Your task to perform on an android device: turn off picture-in-picture Image 0: 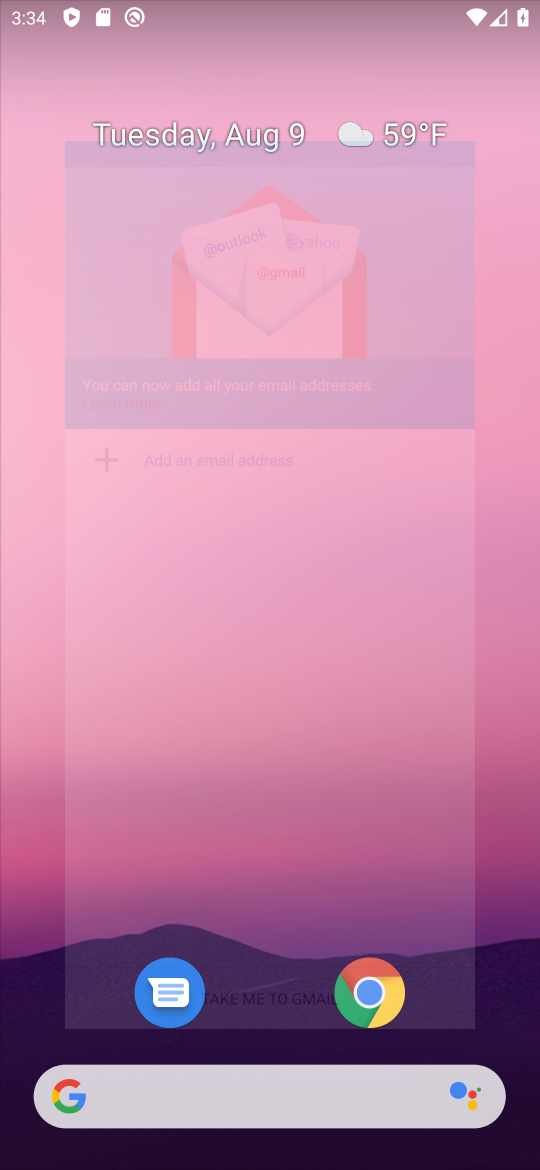
Step 0: press back button
Your task to perform on an android device: turn off picture-in-picture Image 1: 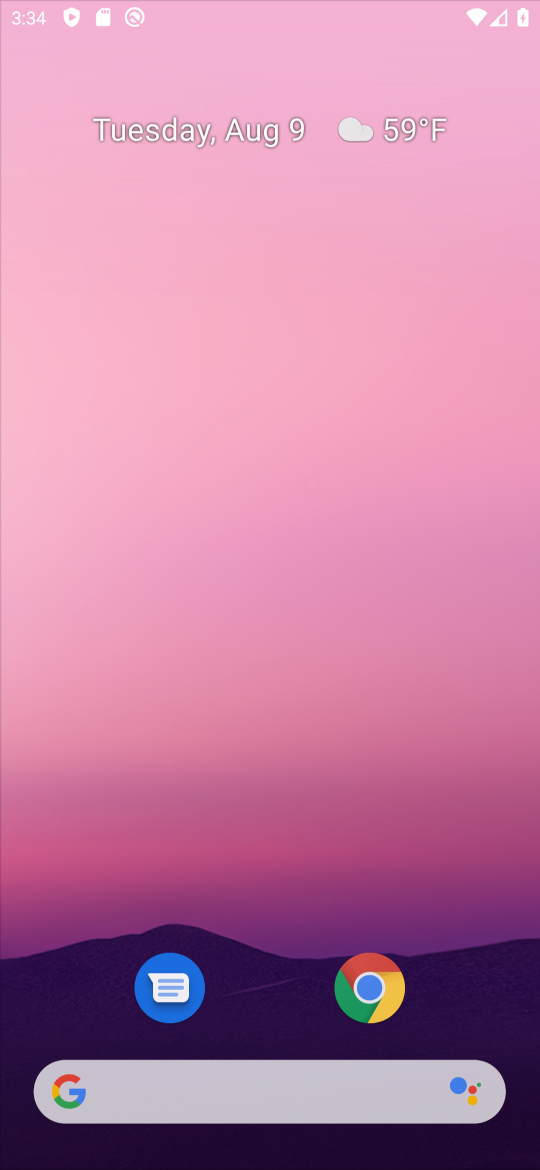
Step 1: press back button
Your task to perform on an android device: turn off picture-in-picture Image 2: 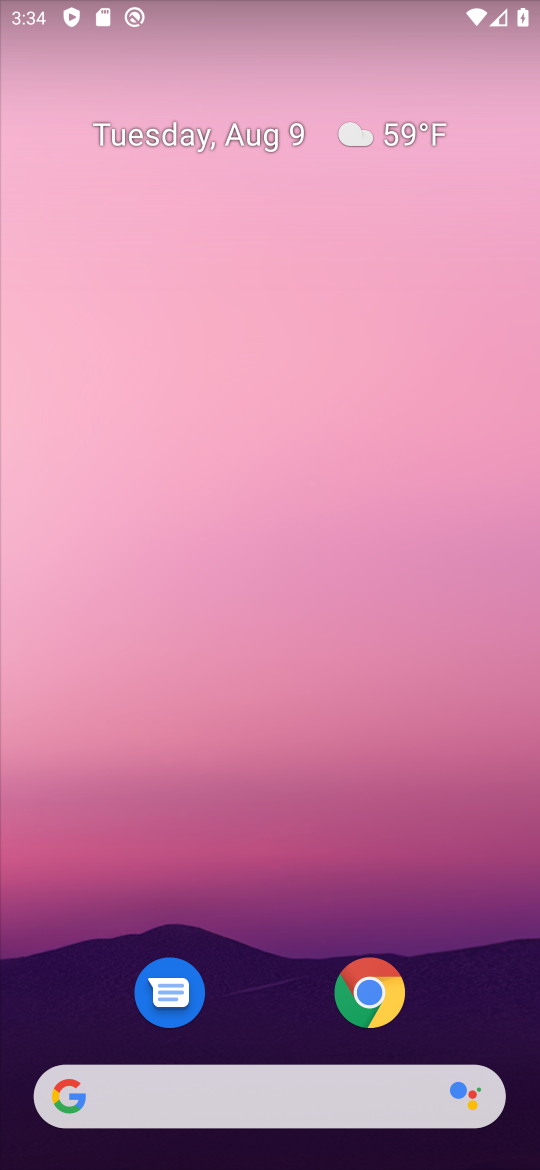
Step 2: drag from (296, 806) to (397, 148)
Your task to perform on an android device: turn off picture-in-picture Image 3: 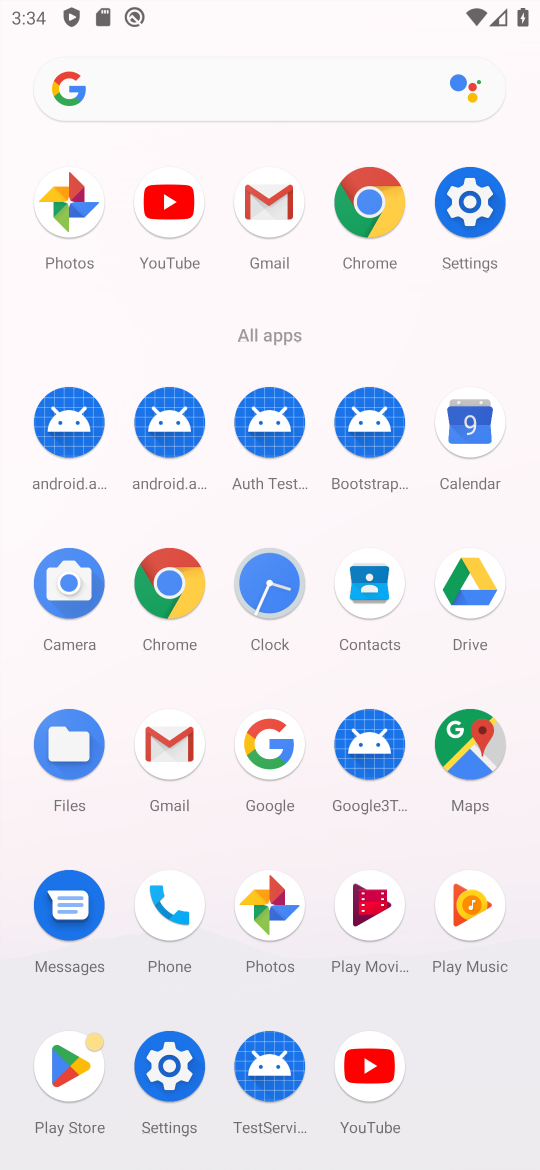
Step 3: click (476, 184)
Your task to perform on an android device: turn off picture-in-picture Image 4: 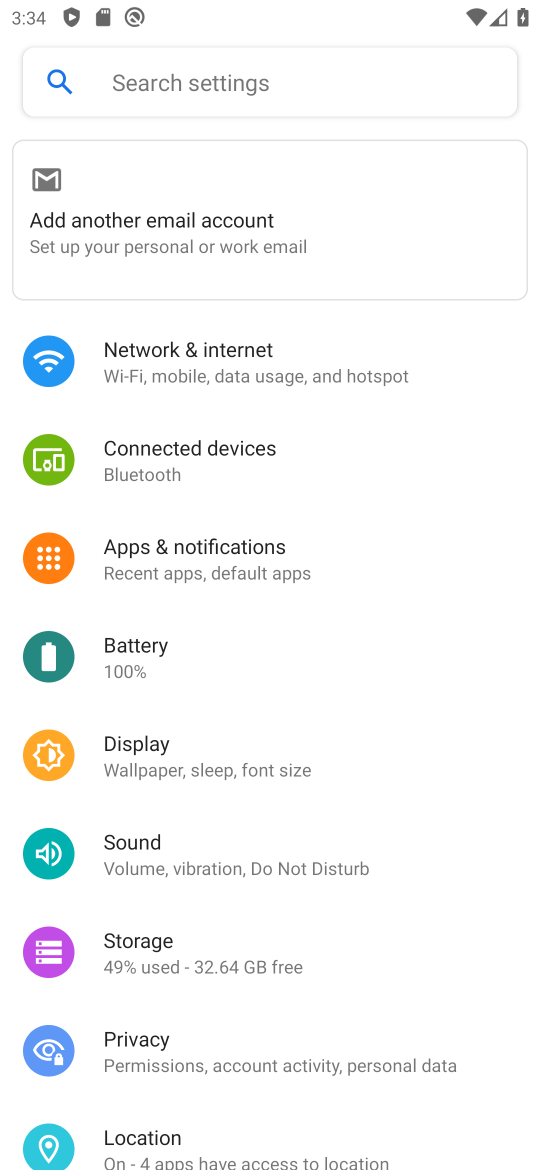
Step 4: press back button
Your task to perform on an android device: turn off picture-in-picture Image 5: 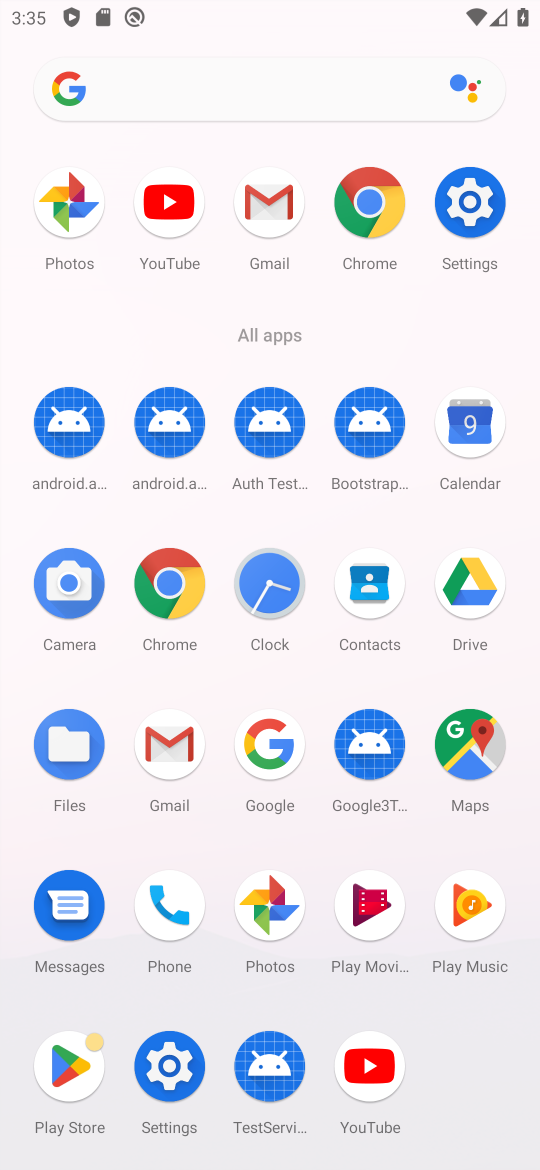
Step 5: click (153, 1071)
Your task to perform on an android device: turn off picture-in-picture Image 6: 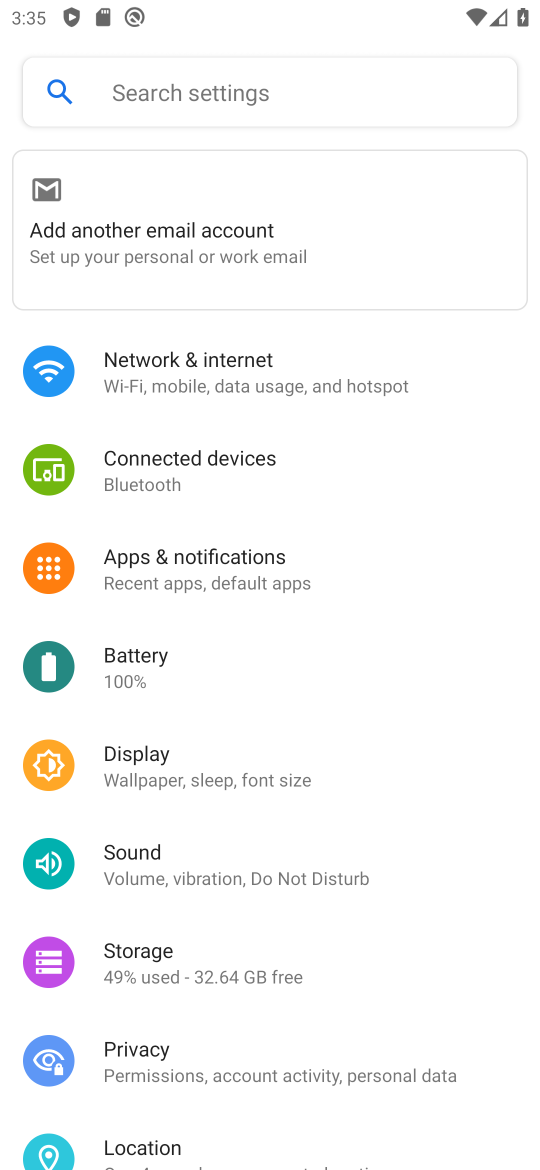
Step 6: click (285, 564)
Your task to perform on an android device: turn off picture-in-picture Image 7: 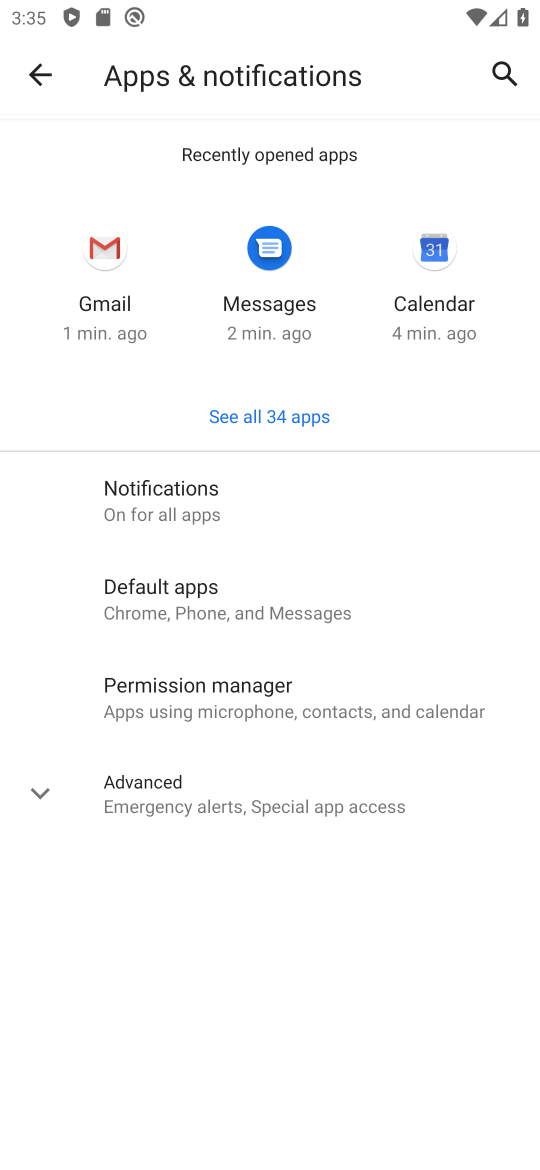
Step 7: click (220, 494)
Your task to perform on an android device: turn off picture-in-picture Image 8: 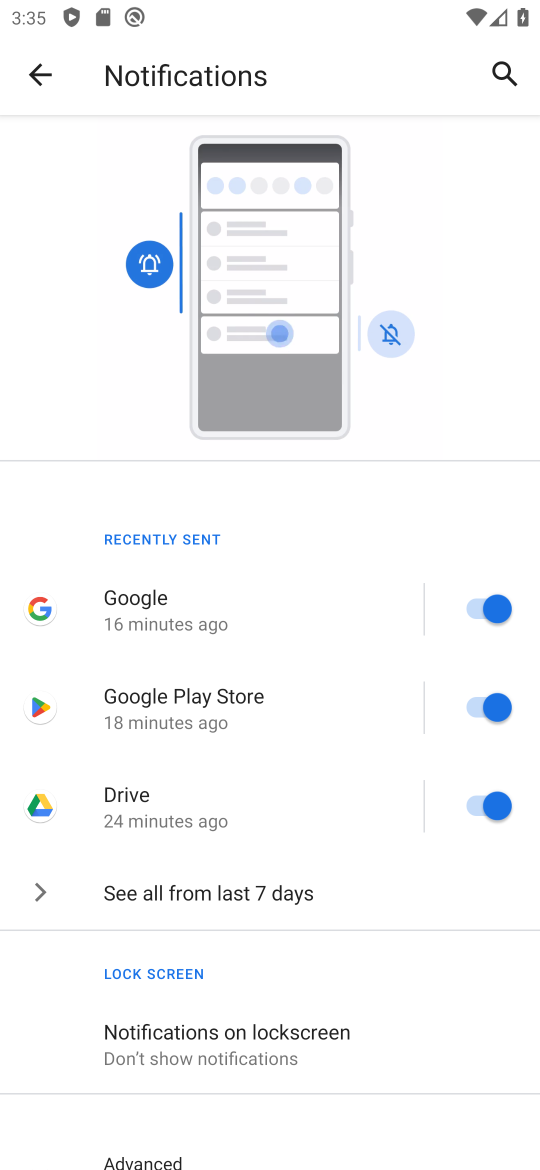
Step 8: drag from (185, 1039) to (363, 474)
Your task to perform on an android device: turn off picture-in-picture Image 9: 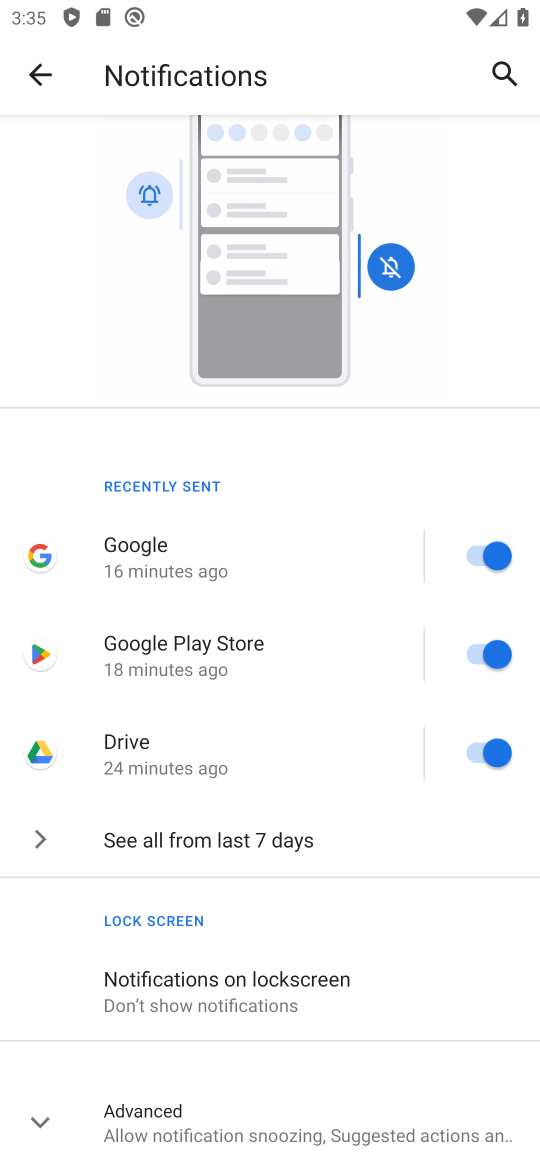
Step 9: click (186, 1098)
Your task to perform on an android device: turn off picture-in-picture Image 10: 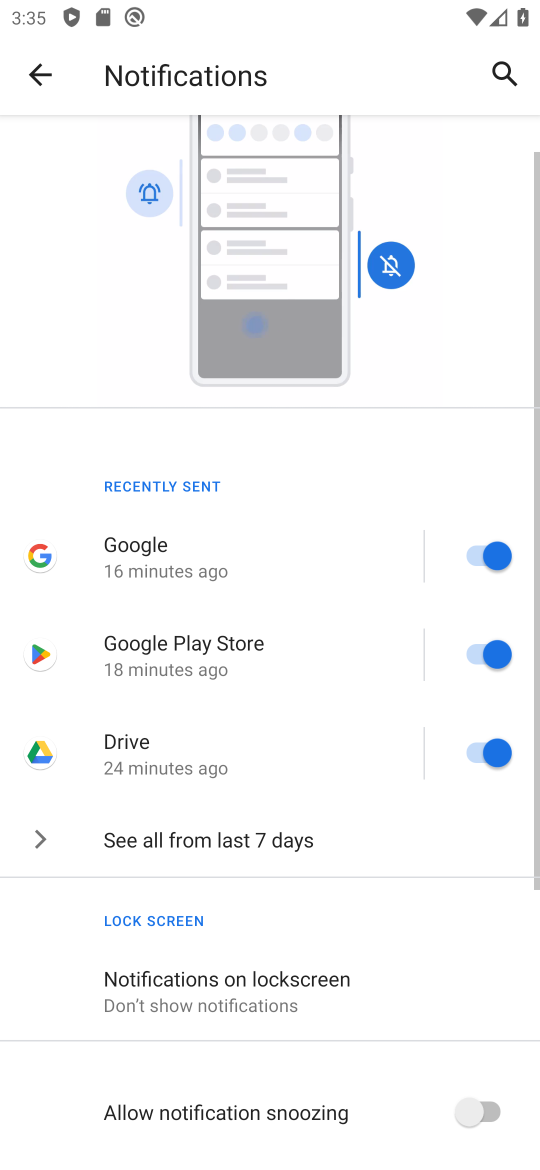
Step 10: drag from (215, 1114) to (326, 543)
Your task to perform on an android device: turn off picture-in-picture Image 11: 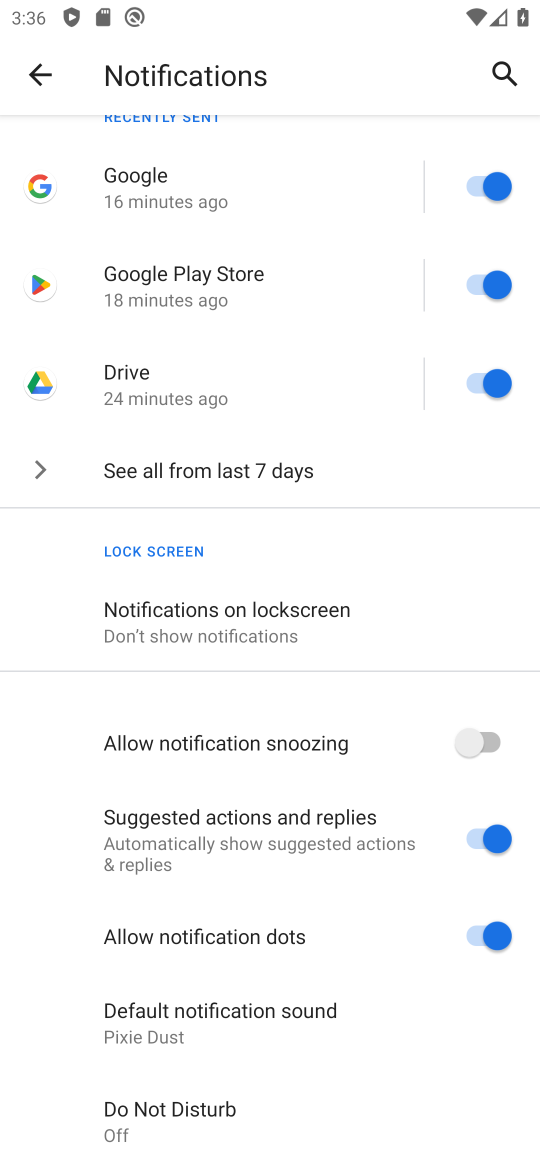
Step 11: drag from (255, 1091) to (335, 197)
Your task to perform on an android device: turn off picture-in-picture Image 12: 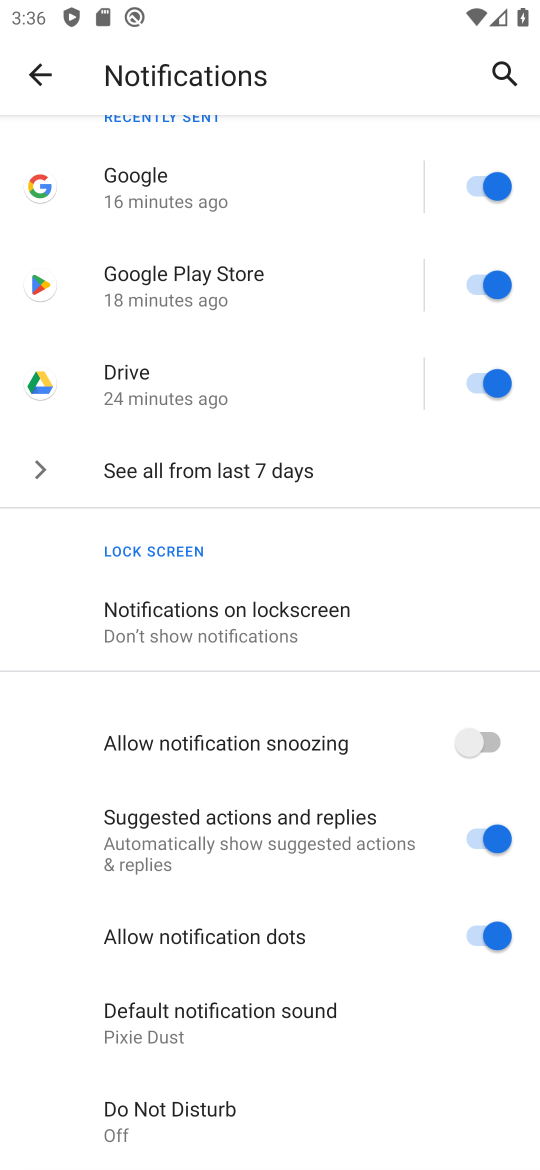
Step 12: click (53, 71)
Your task to perform on an android device: turn off picture-in-picture Image 13: 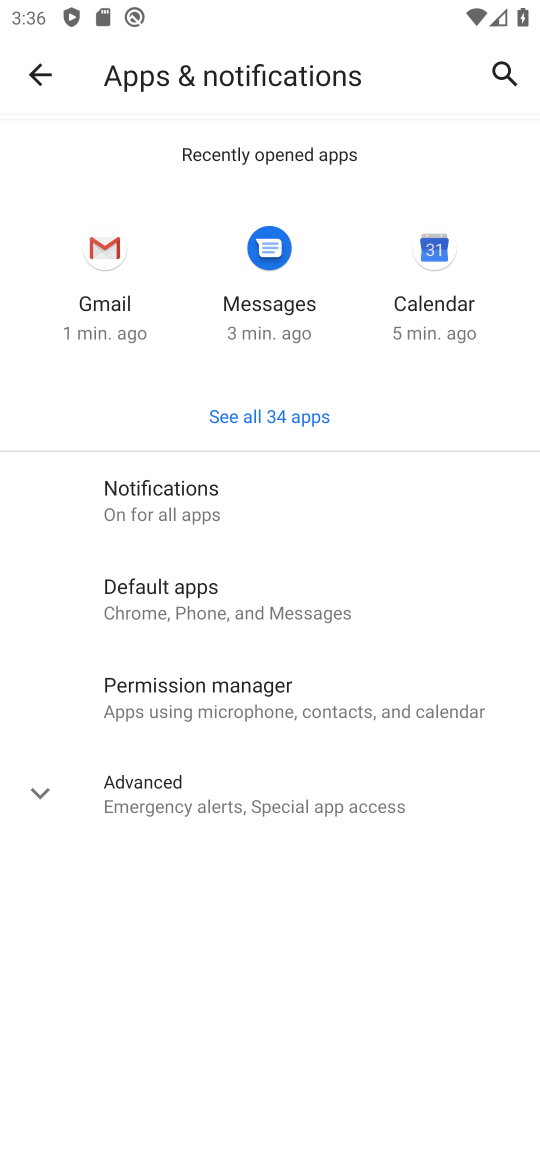
Step 13: click (200, 791)
Your task to perform on an android device: turn off picture-in-picture Image 14: 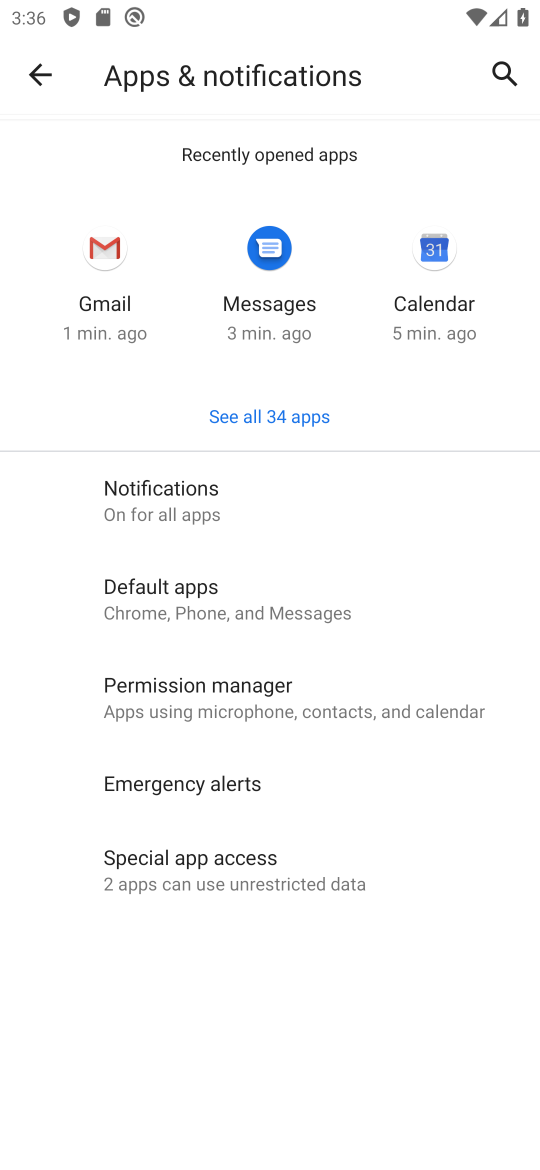
Step 14: click (199, 869)
Your task to perform on an android device: turn off picture-in-picture Image 15: 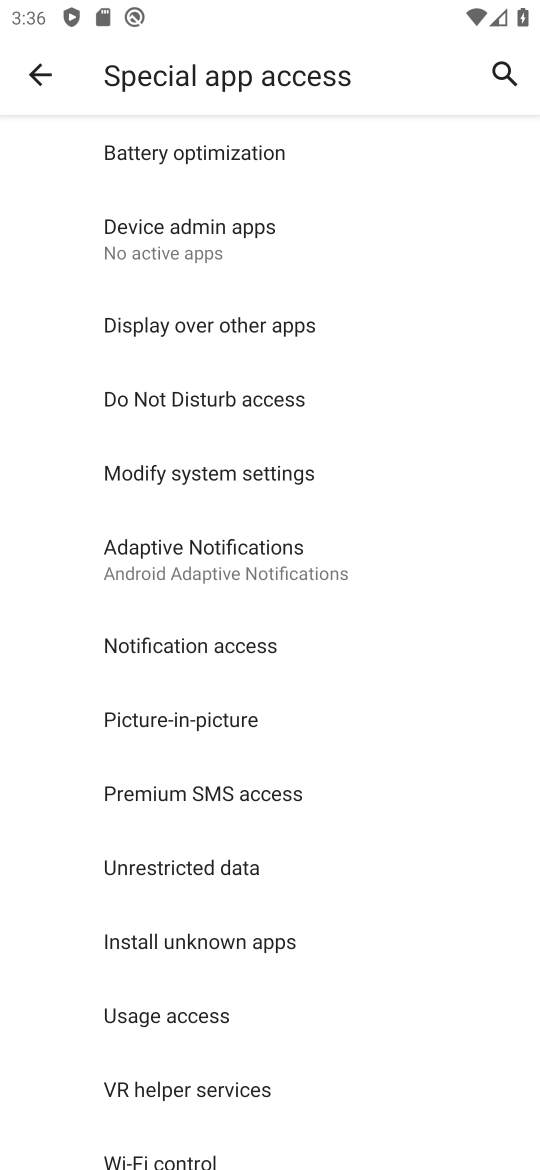
Step 15: drag from (255, 1043) to (299, 857)
Your task to perform on an android device: turn off picture-in-picture Image 16: 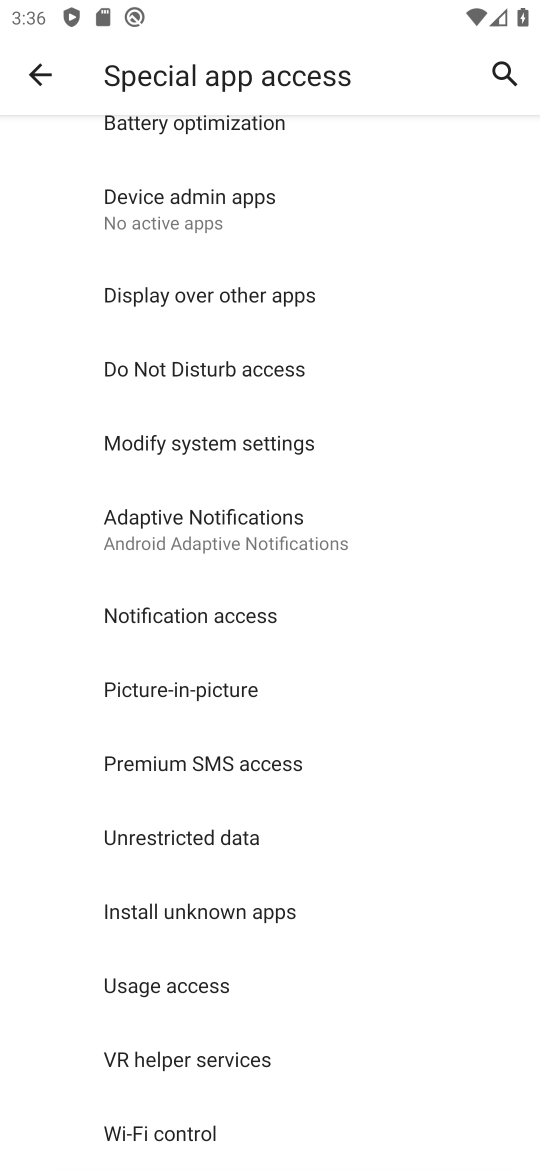
Step 16: click (184, 692)
Your task to perform on an android device: turn off picture-in-picture Image 17: 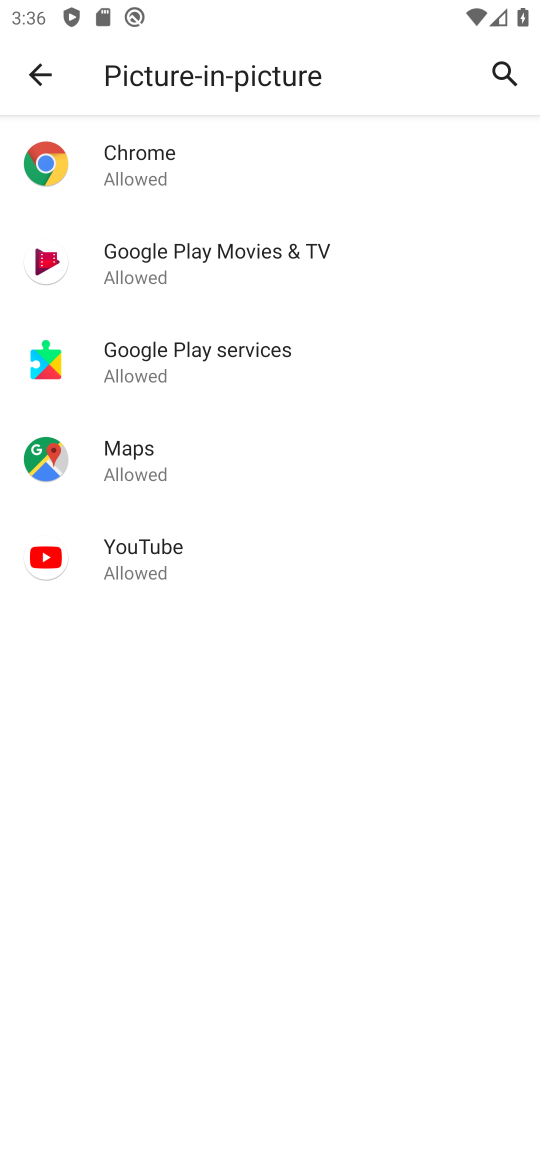
Step 17: click (137, 132)
Your task to perform on an android device: turn off picture-in-picture Image 18: 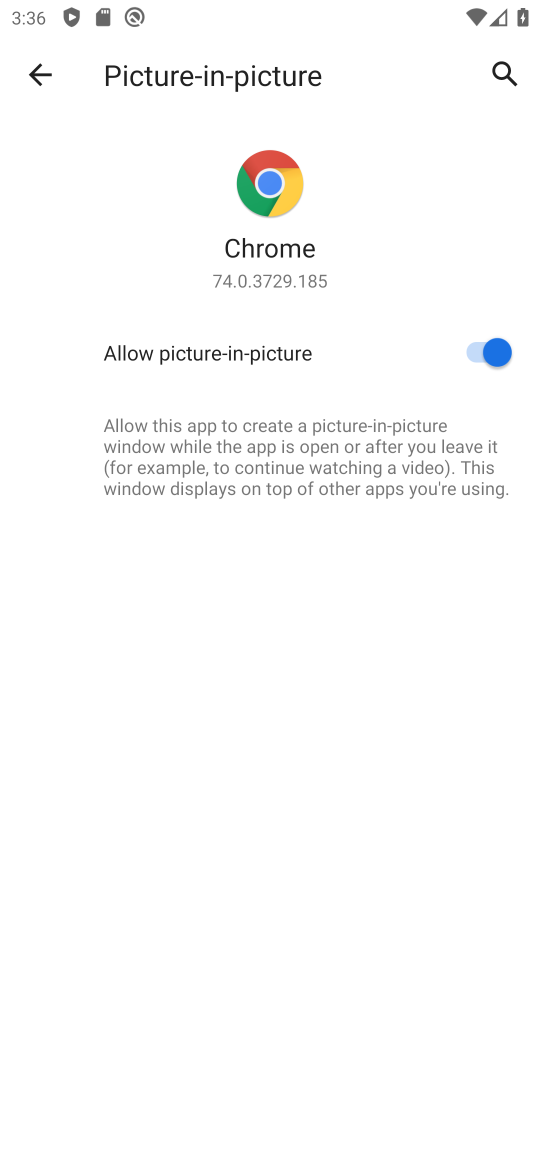
Step 18: click (496, 337)
Your task to perform on an android device: turn off picture-in-picture Image 19: 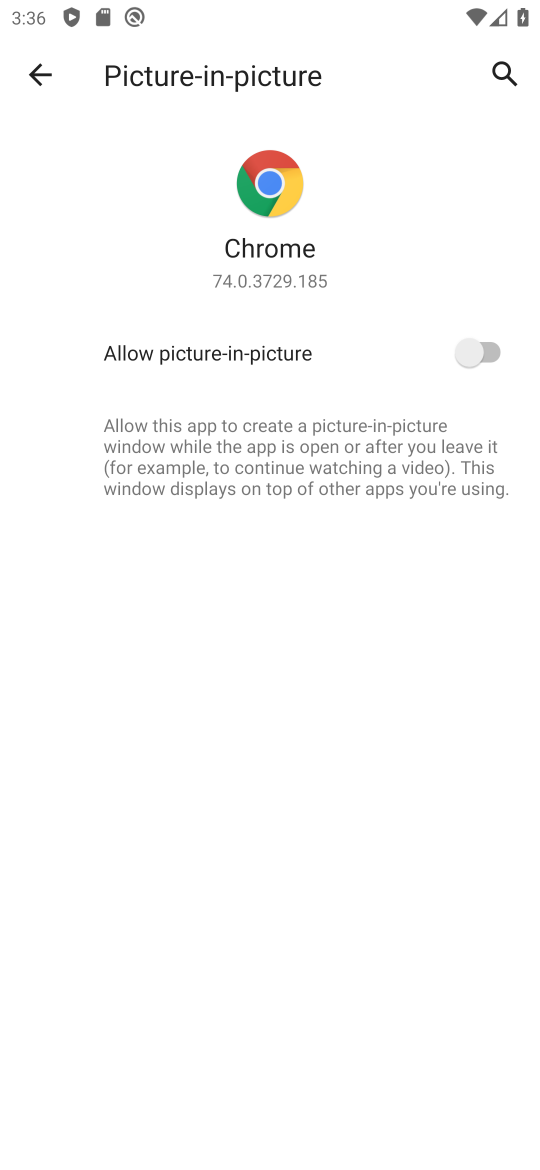
Step 19: task complete